Your task to perform on an android device: Search for 8K TVs on Best Buy. Image 0: 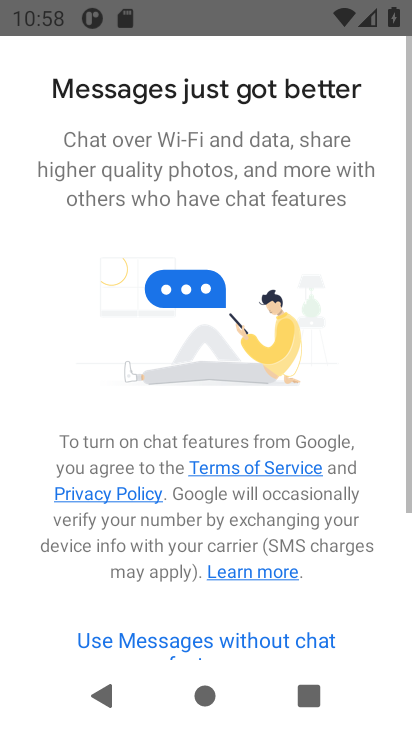
Step 0: task complete